Your task to perform on an android device: set the timer Image 0: 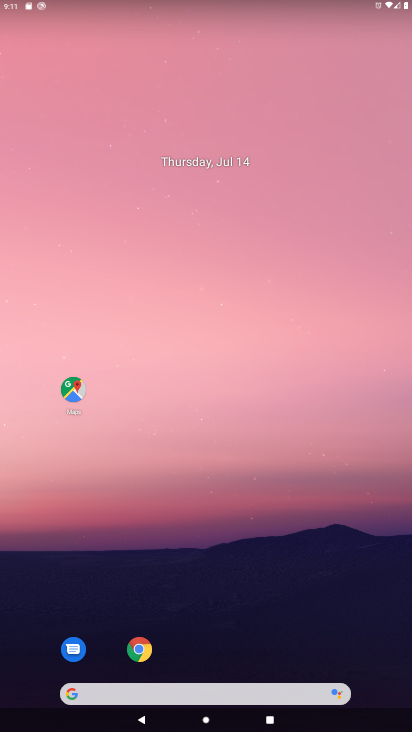
Step 0: drag from (194, 652) to (187, 4)
Your task to perform on an android device: set the timer Image 1: 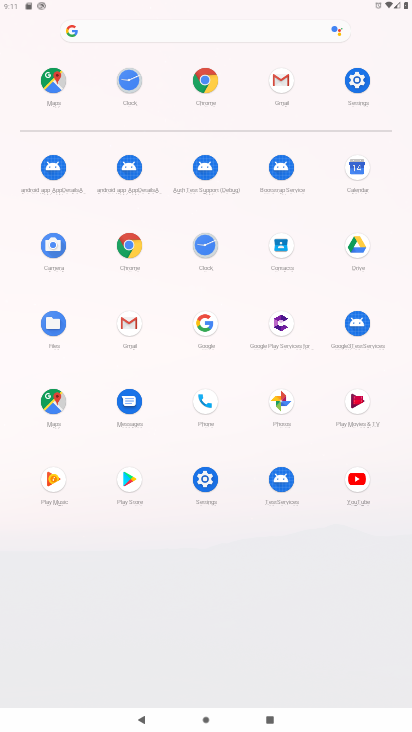
Step 1: click (201, 254)
Your task to perform on an android device: set the timer Image 2: 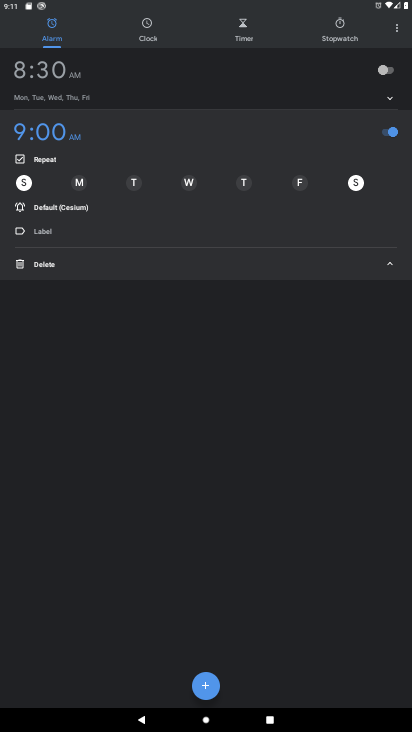
Step 2: click (243, 18)
Your task to perform on an android device: set the timer Image 3: 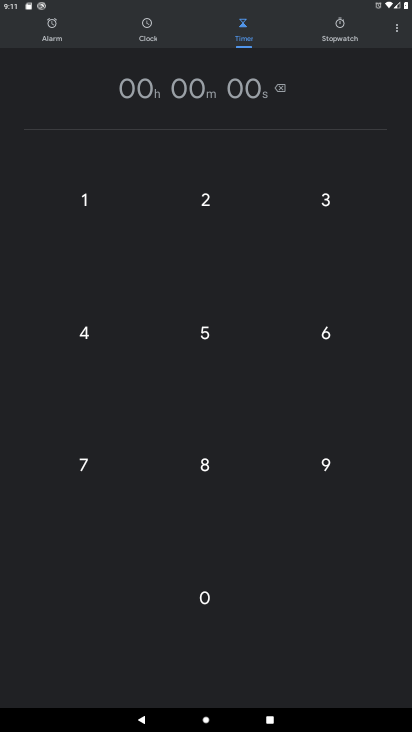
Step 3: click (82, 472)
Your task to perform on an android device: set the timer Image 4: 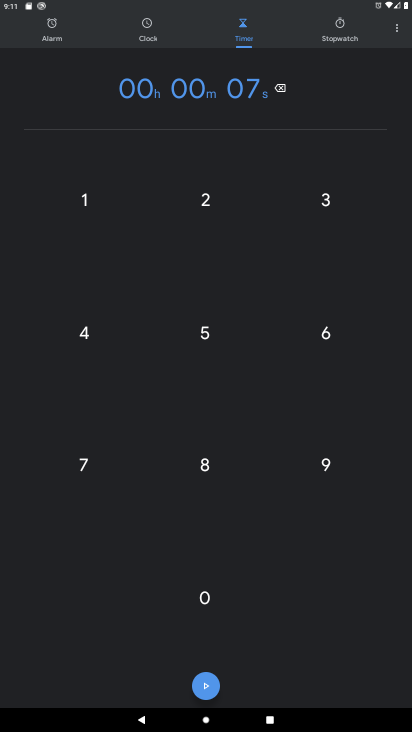
Step 4: click (207, 332)
Your task to perform on an android device: set the timer Image 5: 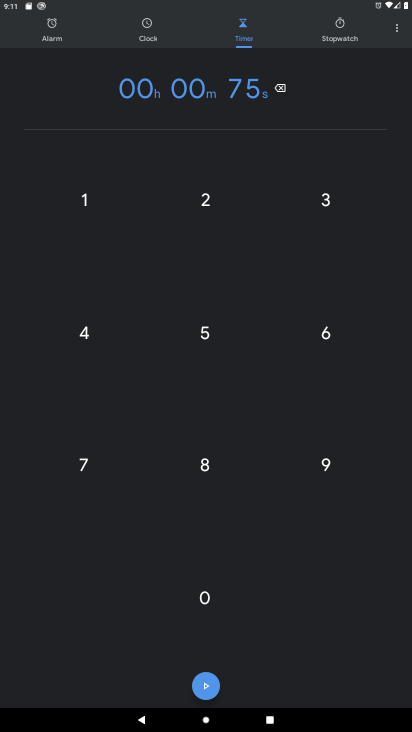
Step 5: click (335, 211)
Your task to perform on an android device: set the timer Image 6: 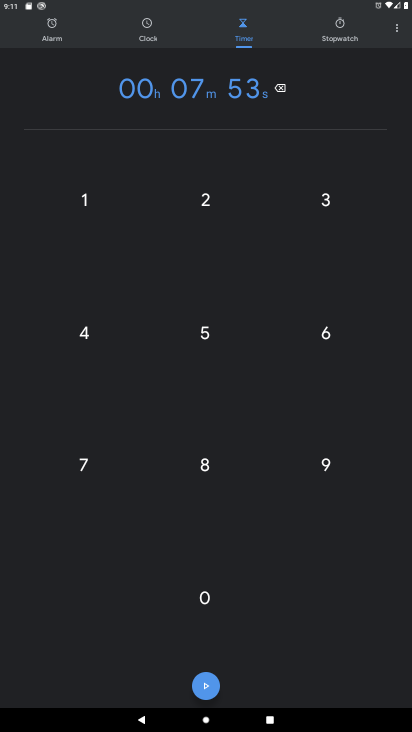
Step 6: click (203, 686)
Your task to perform on an android device: set the timer Image 7: 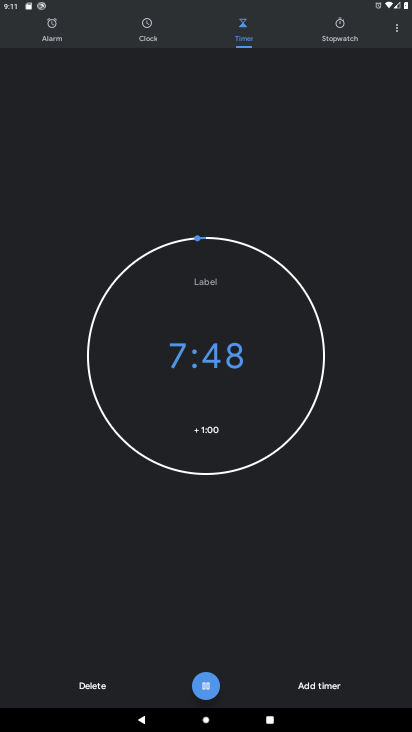
Step 7: task complete